Your task to perform on an android device: change alarm snooze length Image 0: 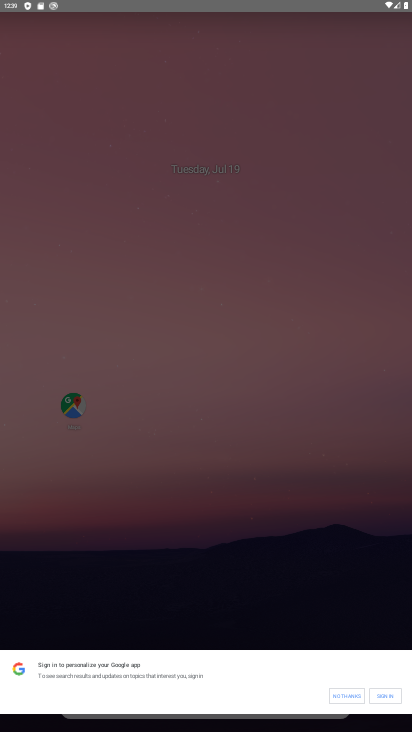
Step 0: press back button
Your task to perform on an android device: change alarm snooze length Image 1: 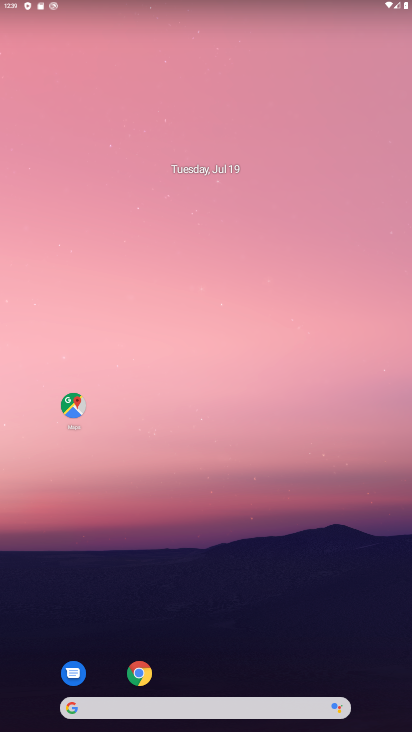
Step 1: press back button
Your task to perform on an android device: change alarm snooze length Image 2: 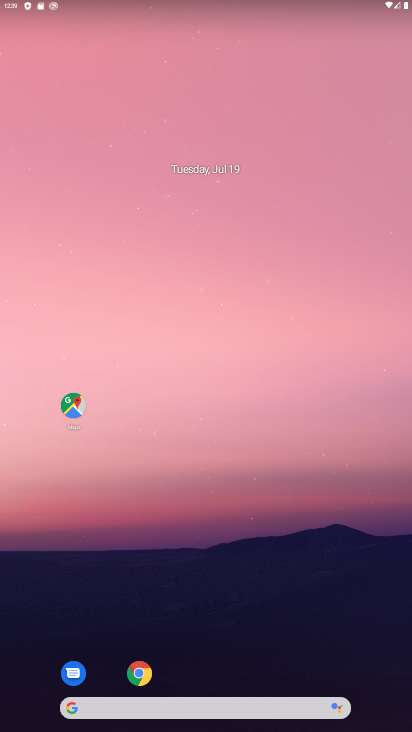
Step 2: drag from (244, 678) to (192, 111)
Your task to perform on an android device: change alarm snooze length Image 3: 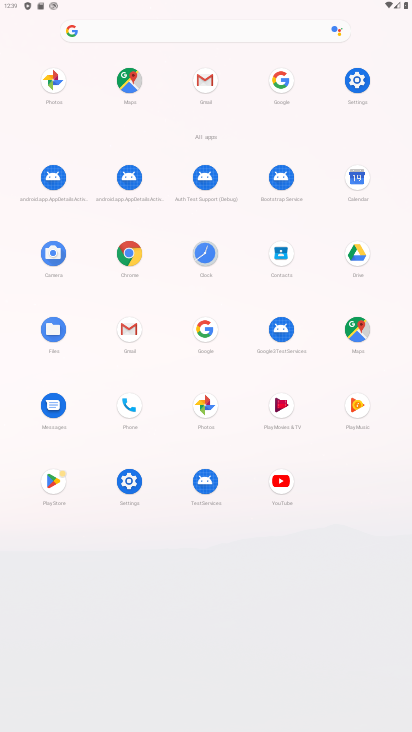
Step 3: click (201, 255)
Your task to perform on an android device: change alarm snooze length Image 4: 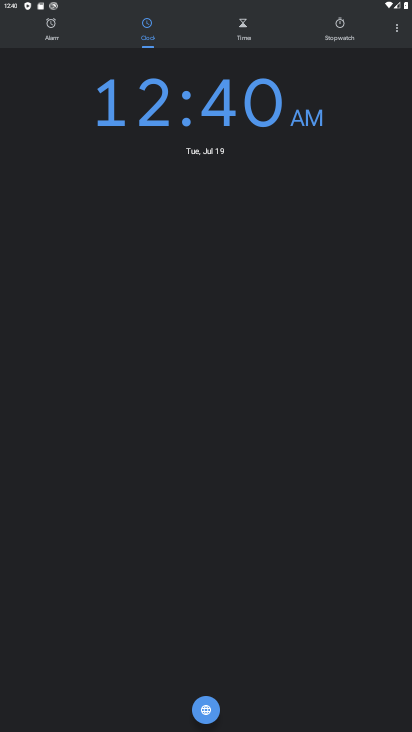
Step 4: click (390, 26)
Your task to perform on an android device: change alarm snooze length Image 5: 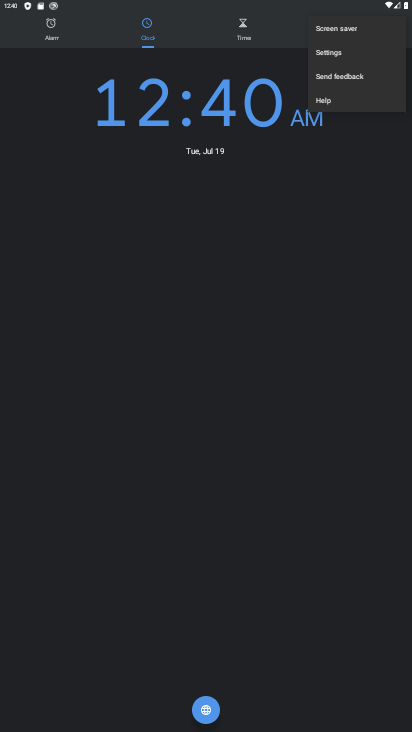
Step 5: click (333, 48)
Your task to perform on an android device: change alarm snooze length Image 6: 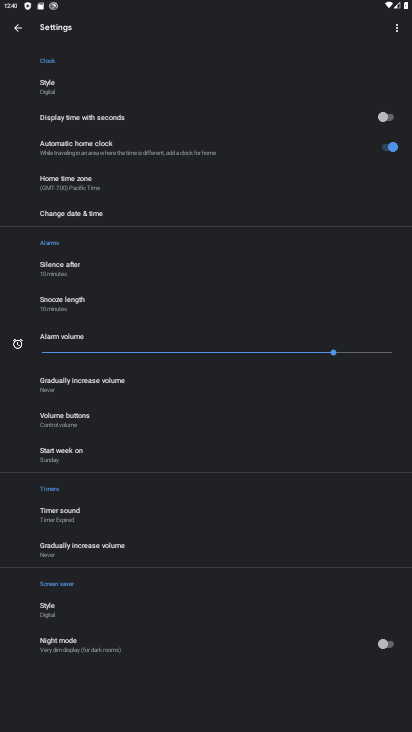
Step 6: click (73, 311)
Your task to perform on an android device: change alarm snooze length Image 7: 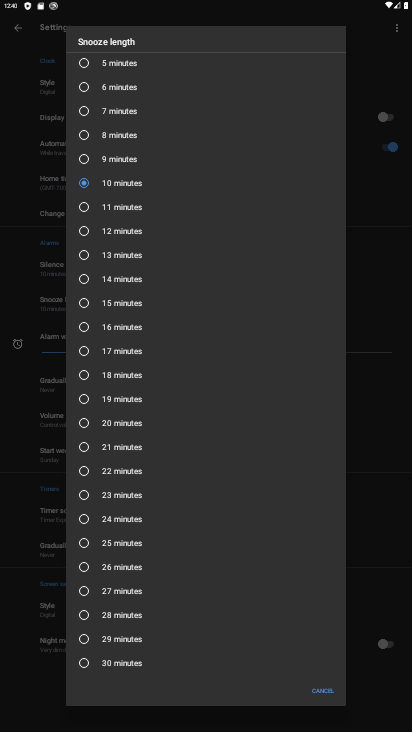
Step 7: click (93, 206)
Your task to perform on an android device: change alarm snooze length Image 8: 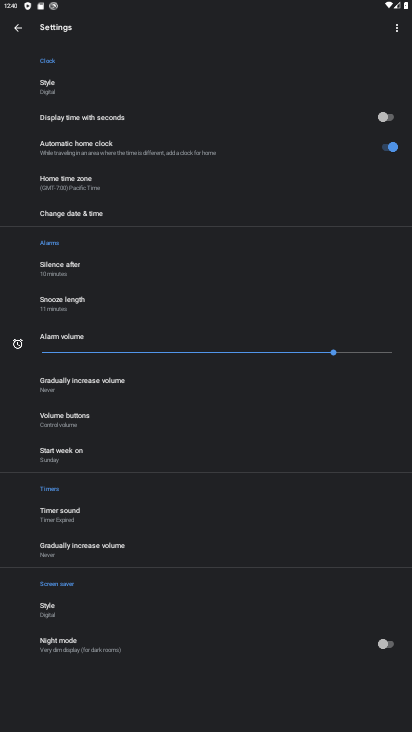
Step 8: task complete